Your task to perform on an android device: Is it going to rain tomorrow? Image 0: 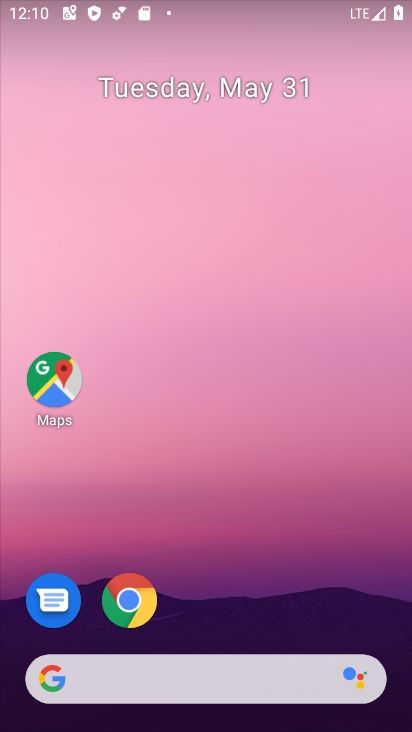
Step 0: drag from (205, 686) to (206, 119)
Your task to perform on an android device: Is it going to rain tomorrow? Image 1: 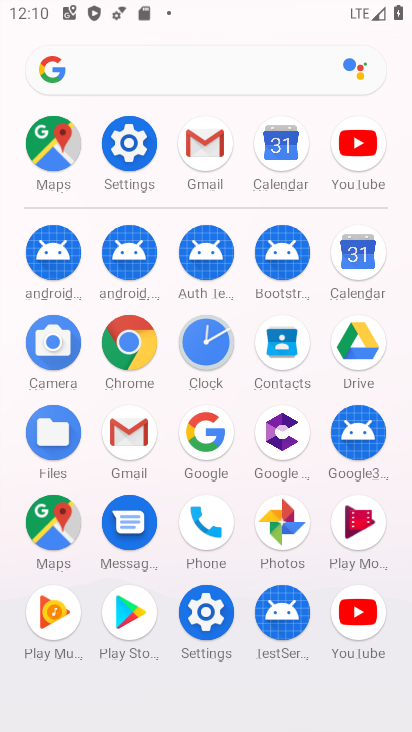
Step 1: click (197, 429)
Your task to perform on an android device: Is it going to rain tomorrow? Image 2: 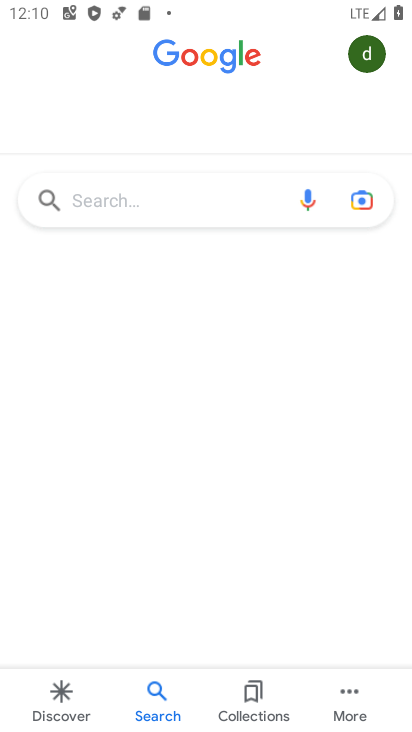
Step 2: click (140, 201)
Your task to perform on an android device: Is it going to rain tomorrow? Image 3: 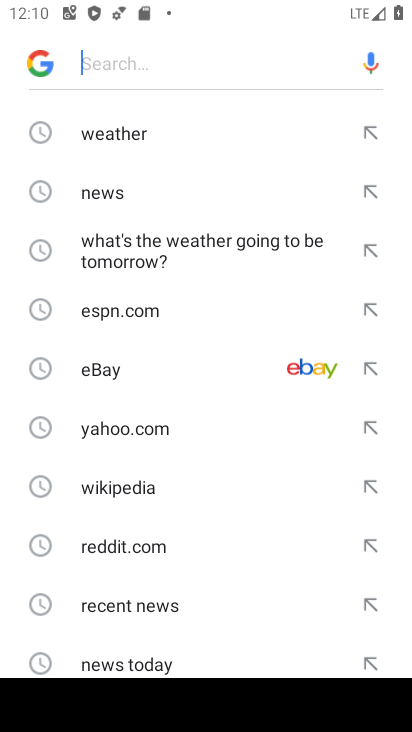
Step 3: click (108, 131)
Your task to perform on an android device: Is it going to rain tomorrow? Image 4: 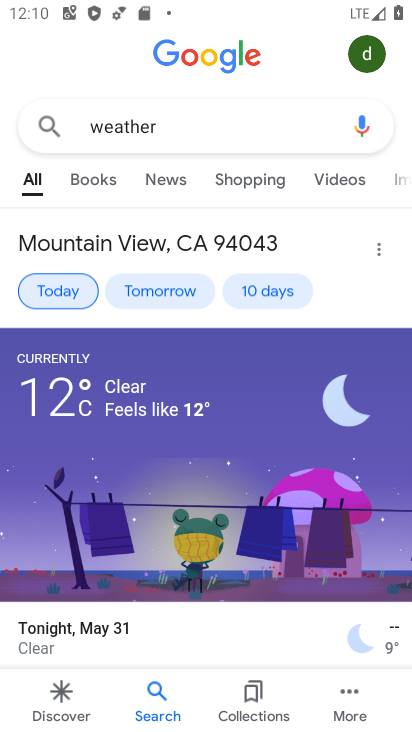
Step 4: click (167, 289)
Your task to perform on an android device: Is it going to rain tomorrow? Image 5: 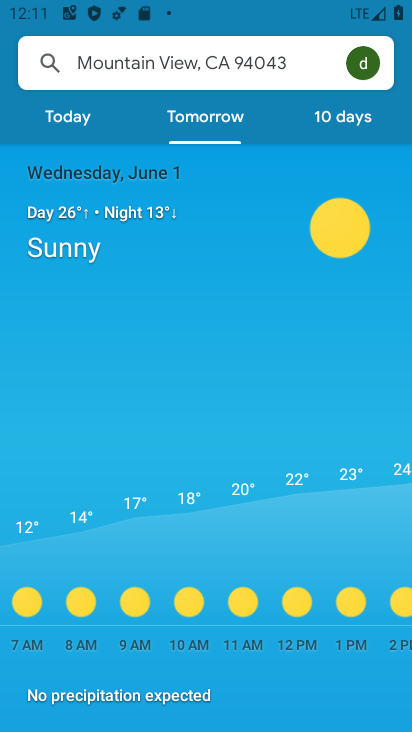
Step 5: task complete